Your task to perform on an android device: turn on location history Image 0: 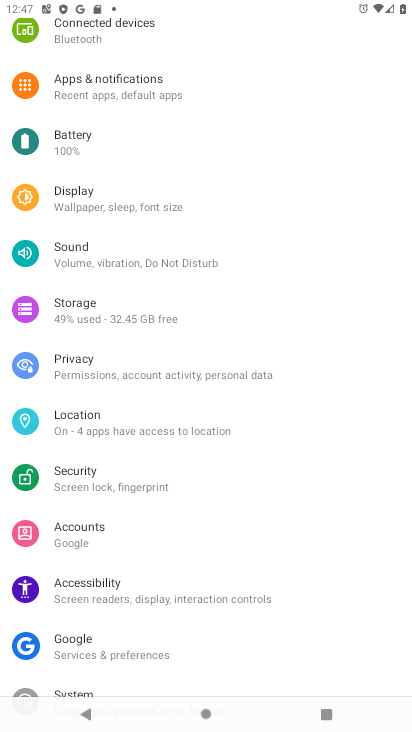
Step 0: click (73, 416)
Your task to perform on an android device: turn on location history Image 1: 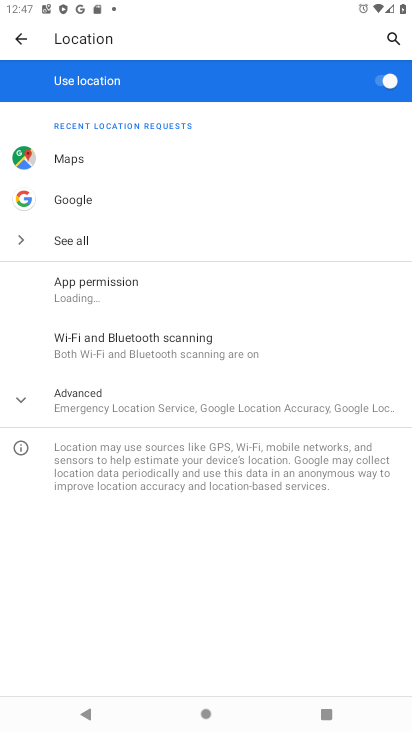
Step 1: click (78, 413)
Your task to perform on an android device: turn on location history Image 2: 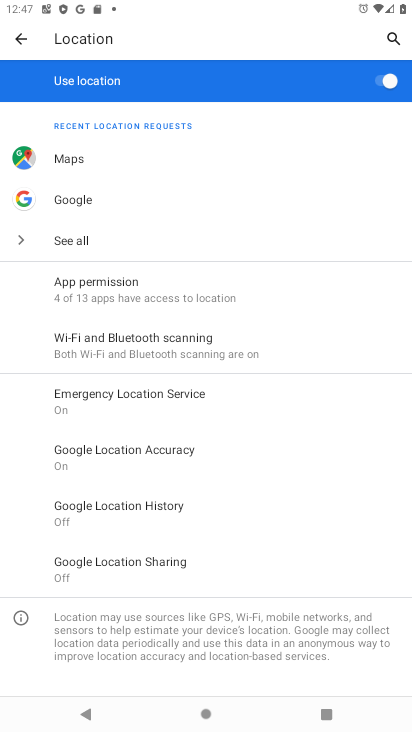
Step 2: click (140, 510)
Your task to perform on an android device: turn on location history Image 3: 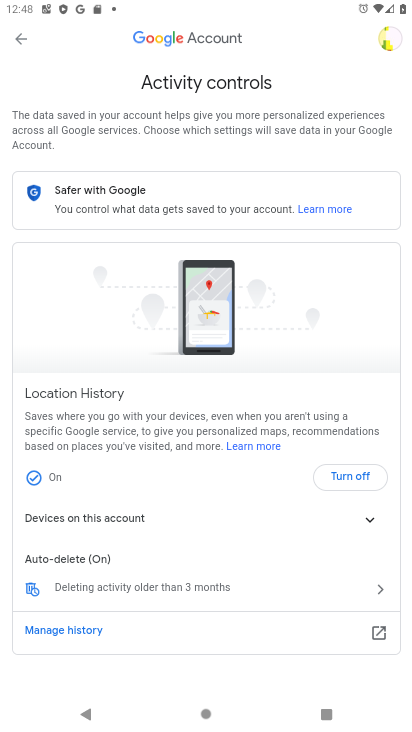
Step 3: task complete